Your task to perform on an android device: Go to Google maps Image 0: 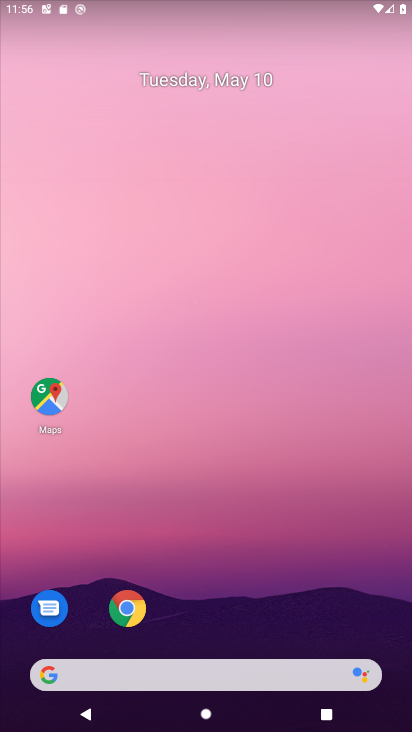
Step 0: click (40, 416)
Your task to perform on an android device: Go to Google maps Image 1: 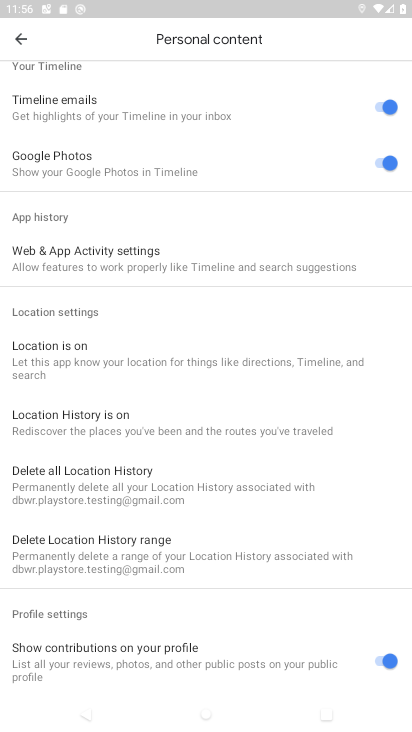
Step 1: click (20, 38)
Your task to perform on an android device: Go to Google maps Image 2: 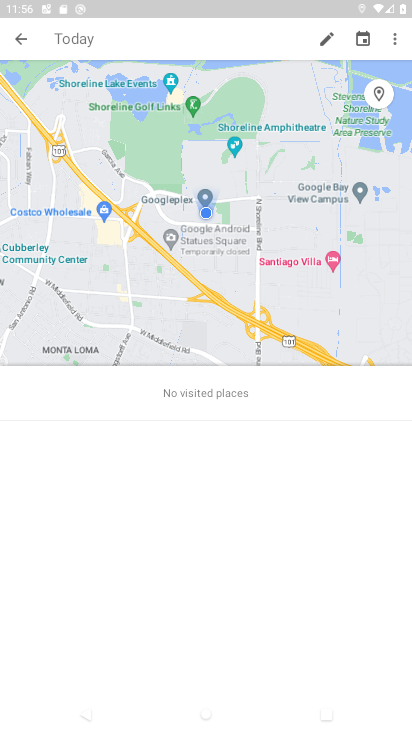
Step 2: click (32, 37)
Your task to perform on an android device: Go to Google maps Image 3: 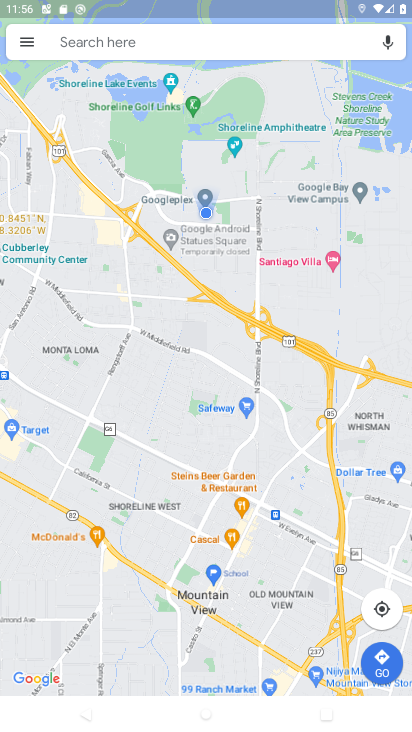
Step 3: task complete